Your task to perform on an android device: What's on my calendar tomorrow? Image 0: 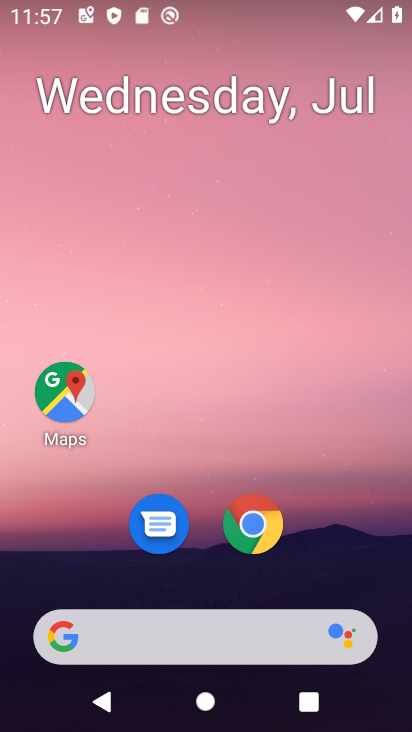
Step 0: drag from (229, 656) to (245, 72)
Your task to perform on an android device: What's on my calendar tomorrow? Image 1: 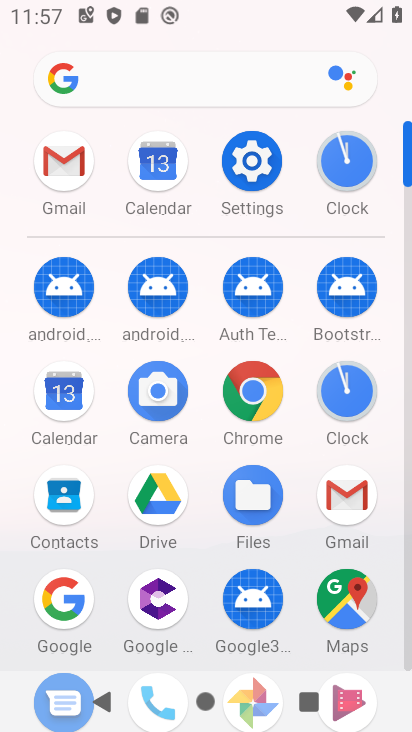
Step 1: click (158, 164)
Your task to perform on an android device: What's on my calendar tomorrow? Image 2: 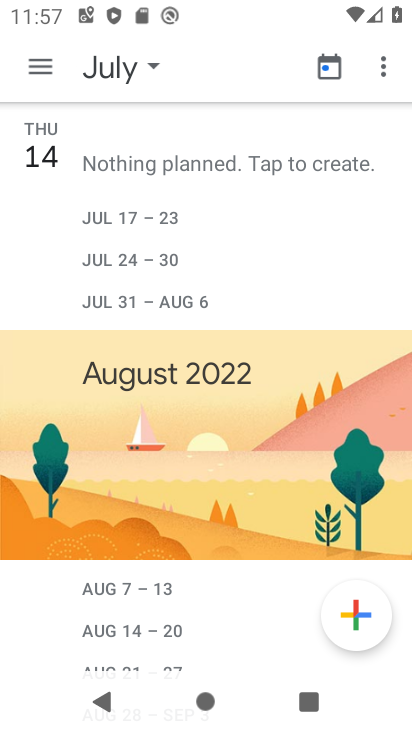
Step 2: task complete